Your task to perform on an android device: Go to CNN.com Image 0: 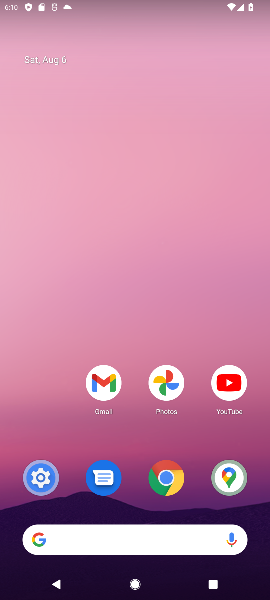
Step 0: press home button
Your task to perform on an android device: Go to CNN.com Image 1: 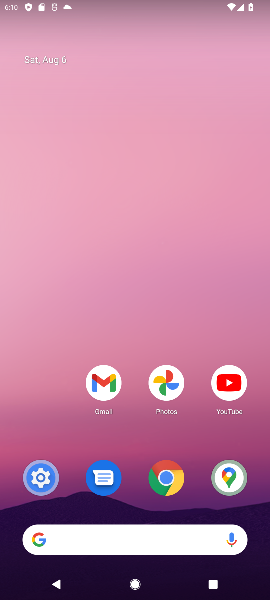
Step 1: click (41, 542)
Your task to perform on an android device: Go to CNN.com Image 2: 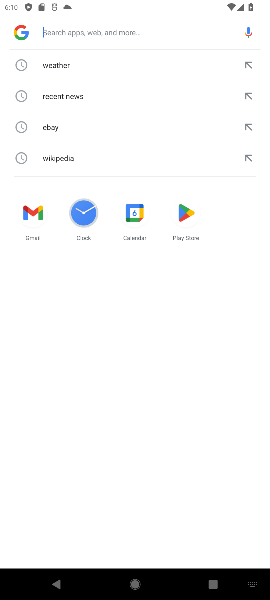
Step 2: type "CNN.com"
Your task to perform on an android device: Go to CNN.com Image 3: 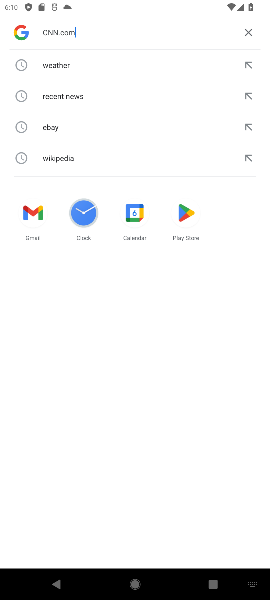
Step 3: press enter
Your task to perform on an android device: Go to CNN.com Image 4: 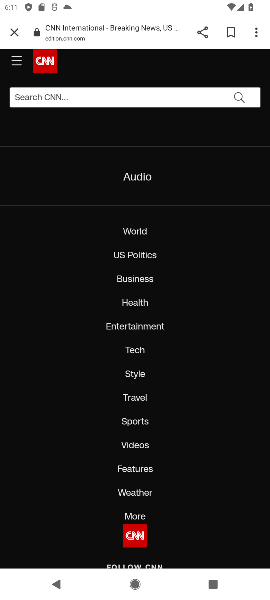
Step 4: task complete